Your task to perform on an android device: see sites visited before in the chrome app Image 0: 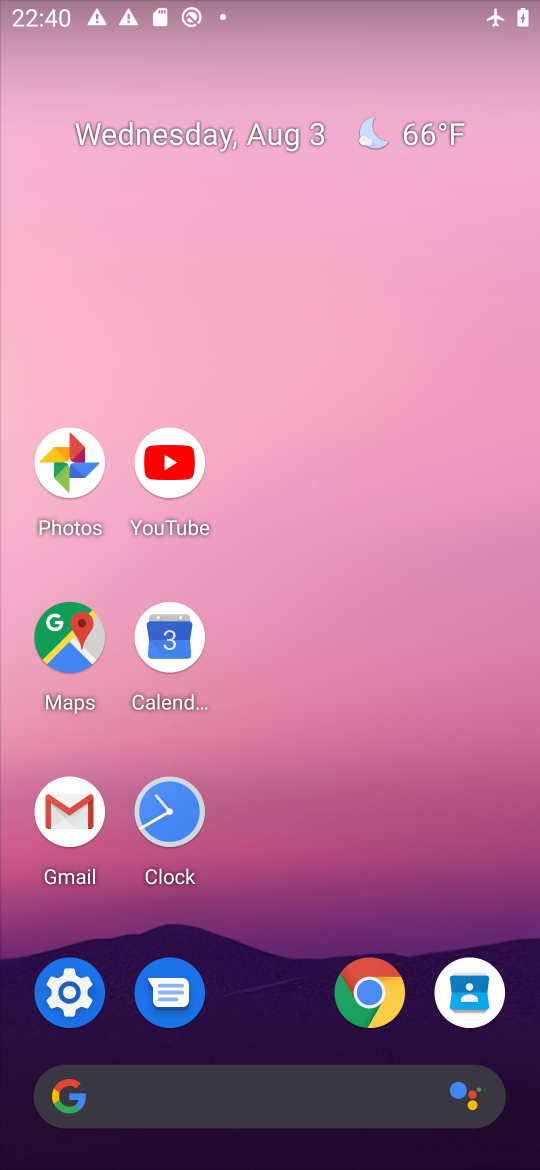
Step 0: click (366, 995)
Your task to perform on an android device: see sites visited before in the chrome app Image 1: 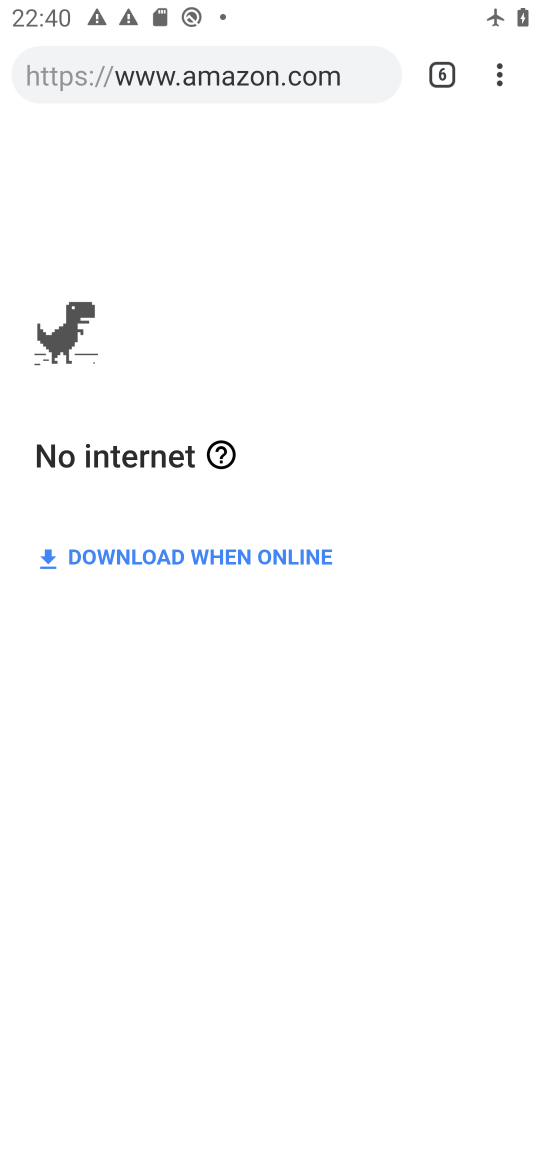
Step 1: click (504, 76)
Your task to perform on an android device: see sites visited before in the chrome app Image 2: 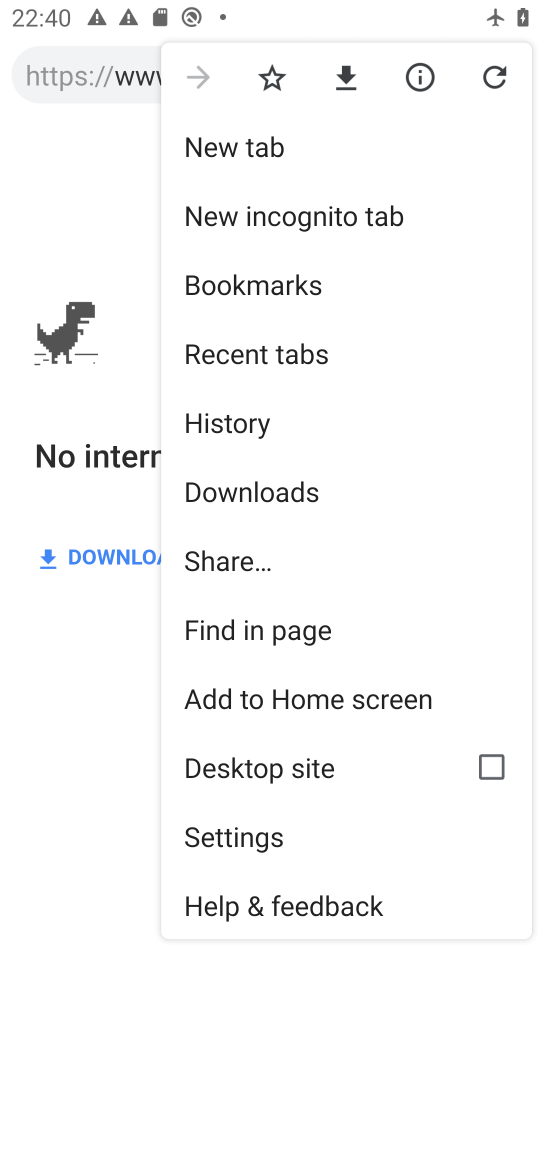
Step 2: click (268, 414)
Your task to perform on an android device: see sites visited before in the chrome app Image 3: 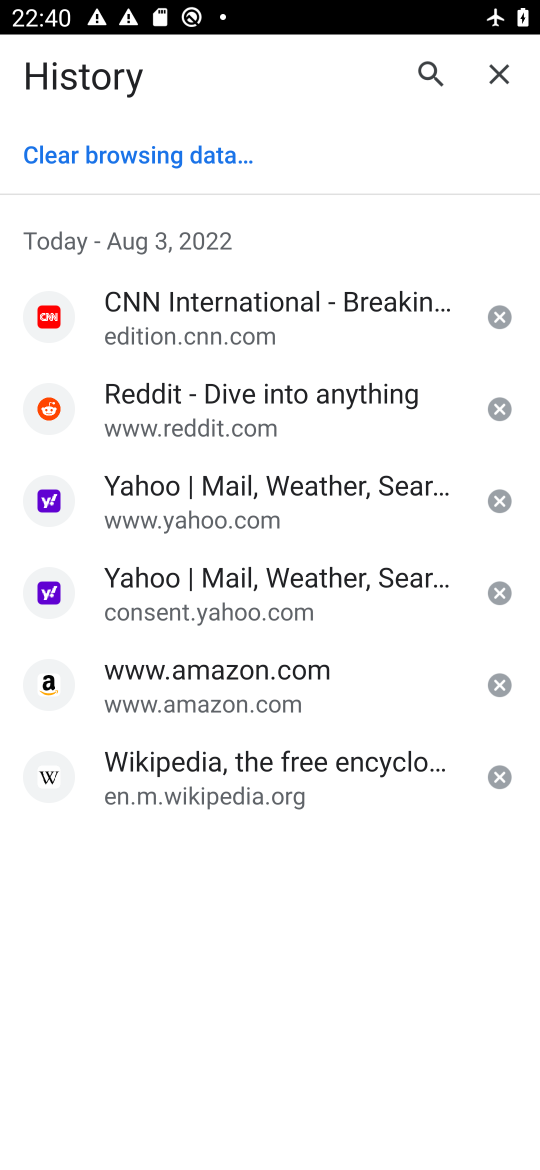
Step 3: task complete